Your task to perform on an android device: When is my next appointment? Image 0: 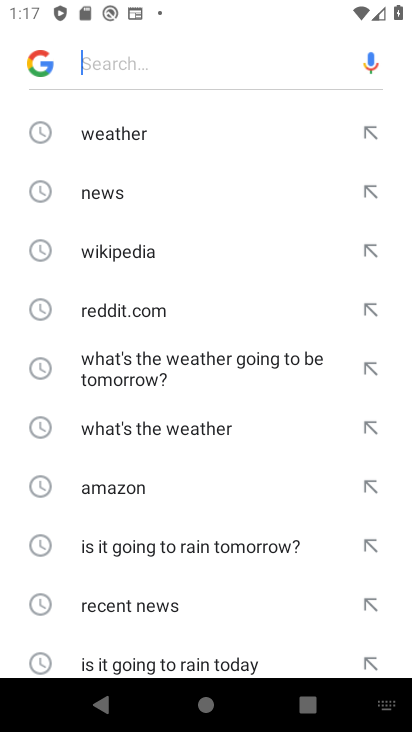
Step 0: press home button
Your task to perform on an android device: When is my next appointment? Image 1: 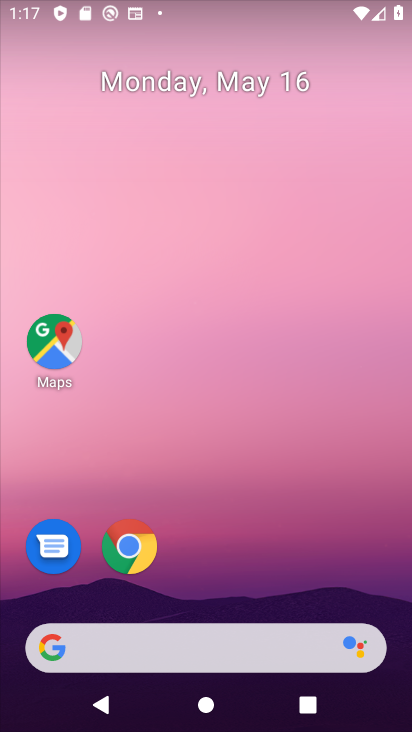
Step 1: drag from (127, 597) to (214, 194)
Your task to perform on an android device: When is my next appointment? Image 2: 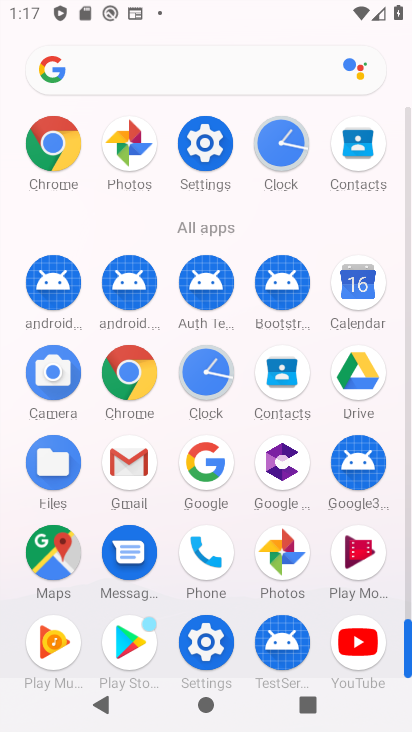
Step 2: click (367, 282)
Your task to perform on an android device: When is my next appointment? Image 3: 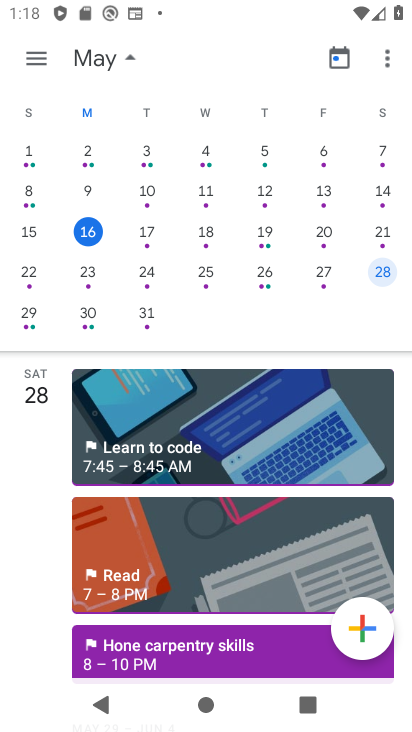
Step 3: click (144, 232)
Your task to perform on an android device: When is my next appointment? Image 4: 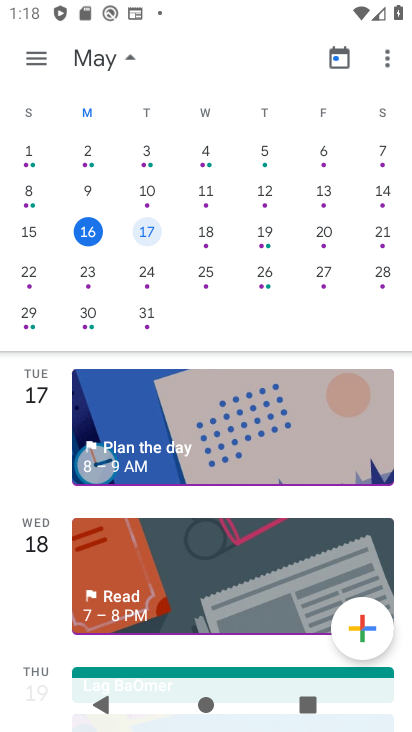
Step 4: click (196, 236)
Your task to perform on an android device: When is my next appointment? Image 5: 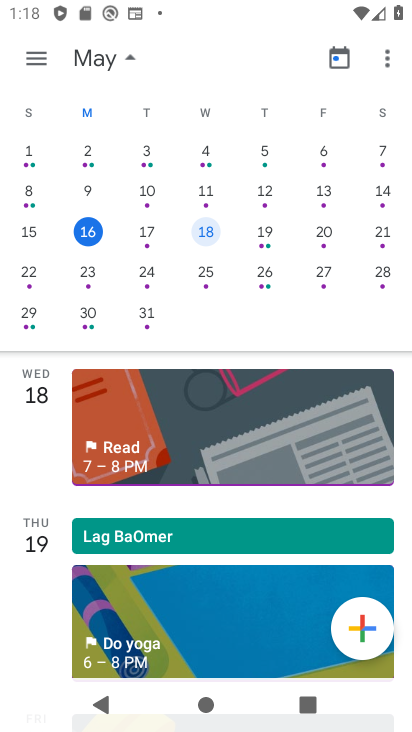
Step 5: click (156, 232)
Your task to perform on an android device: When is my next appointment? Image 6: 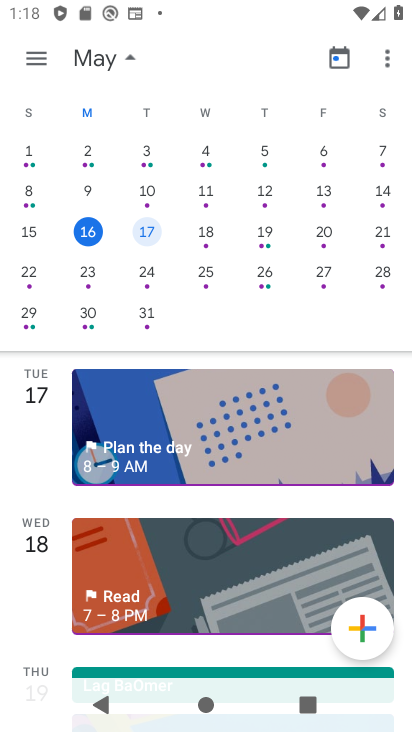
Step 6: task complete